Your task to perform on an android device: Open sound settings Image 0: 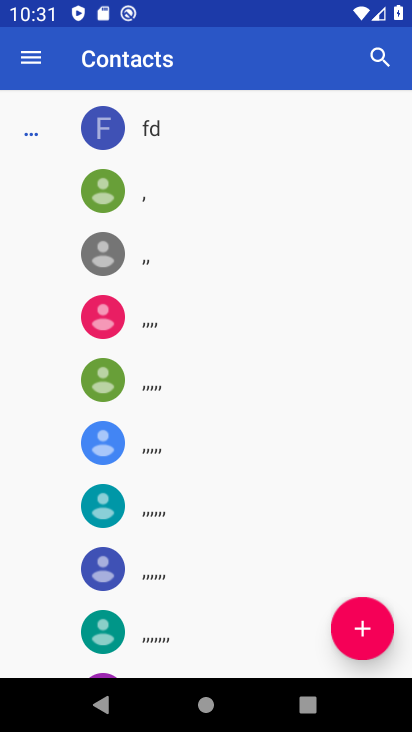
Step 0: press home button
Your task to perform on an android device: Open sound settings Image 1: 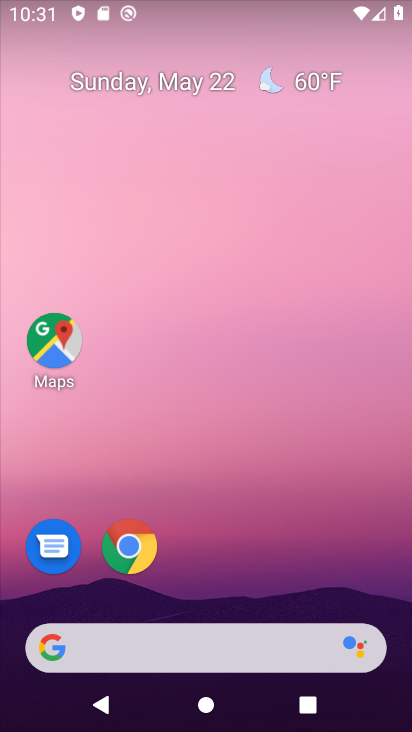
Step 1: drag from (217, 728) to (218, 214)
Your task to perform on an android device: Open sound settings Image 2: 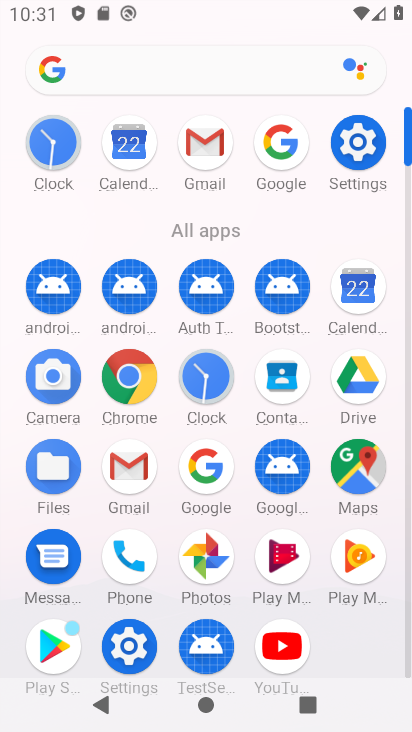
Step 2: click (356, 152)
Your task to perform on an android device: Open sound settings Image 3: 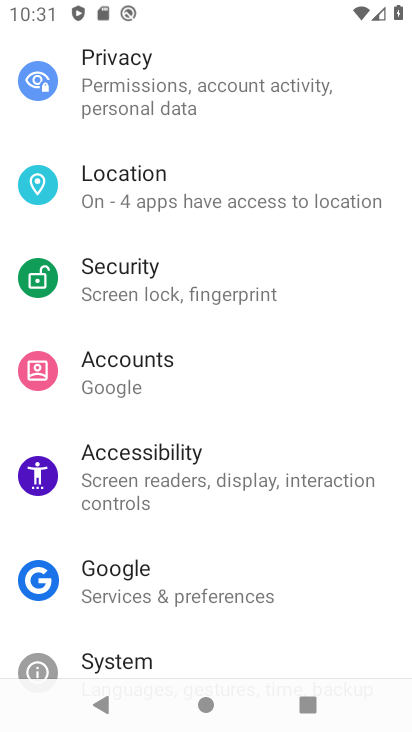
Step 3: drag from (206, 210) to (201, 562)
Your task to perform on an android device: Open sound settings Image 4: 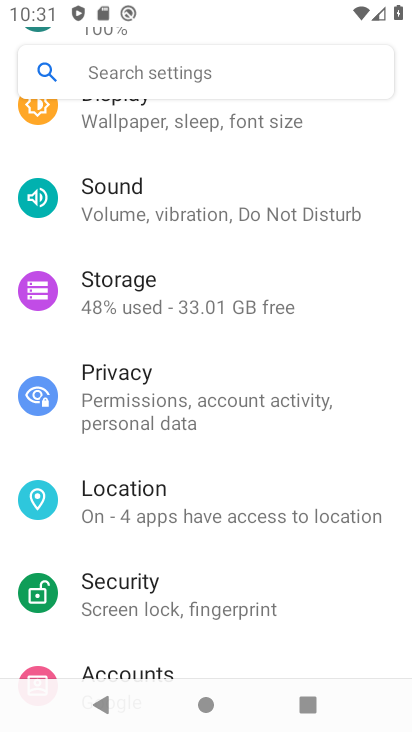
Step 4: click (117, 210)
Your task to perform on an android device: Open sound settings Image 5: 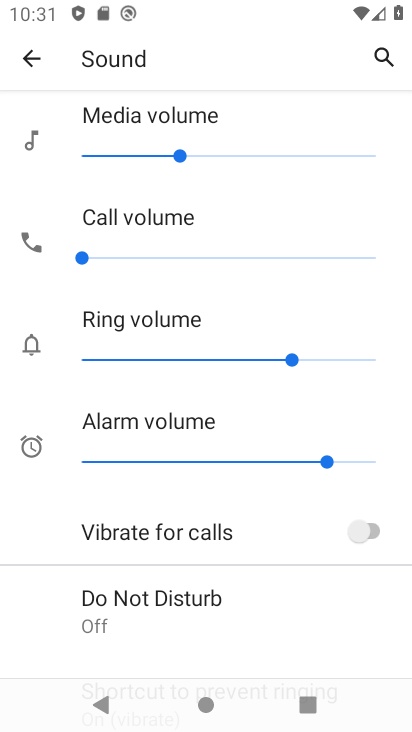
Step 5: task complete